Your task to perform on an android device: Go to calendar. Show me events next week Image 0: 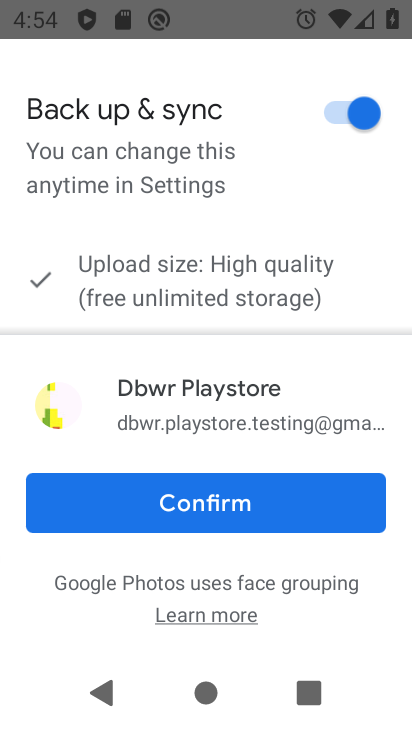
Step 0: press home button
Your task to perform on an android device: Go to calendar. Show me events next week Image 1: 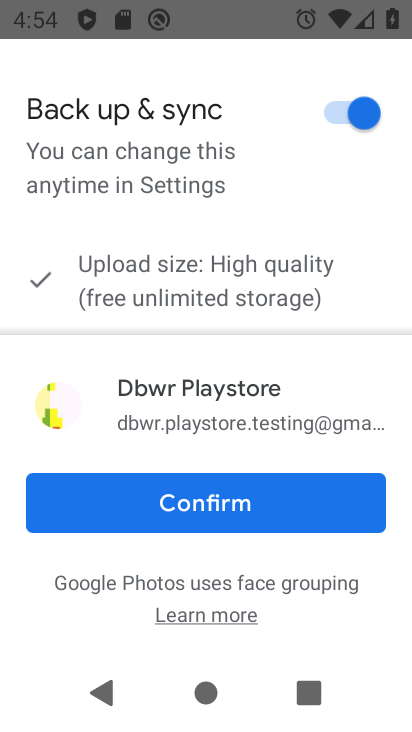
Step 1: press home button
Your task to perform on an android device: Go to calendar. Show me events next week Image 2: 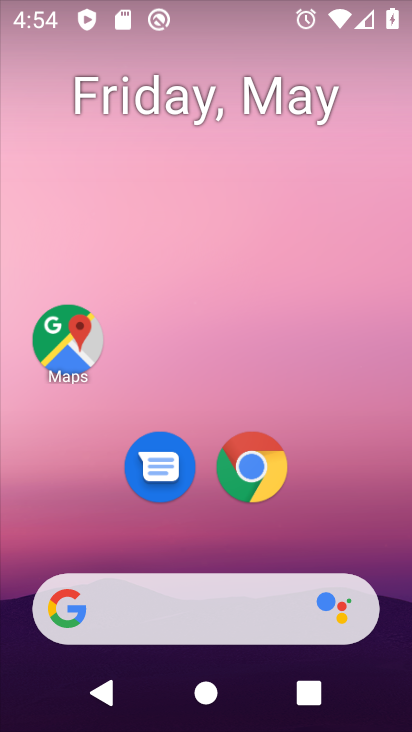
Step 2: drag from (333, 429) to (333, 139)
Your task to perform on an android device: Go to calendar. Show me events next week Image 3: 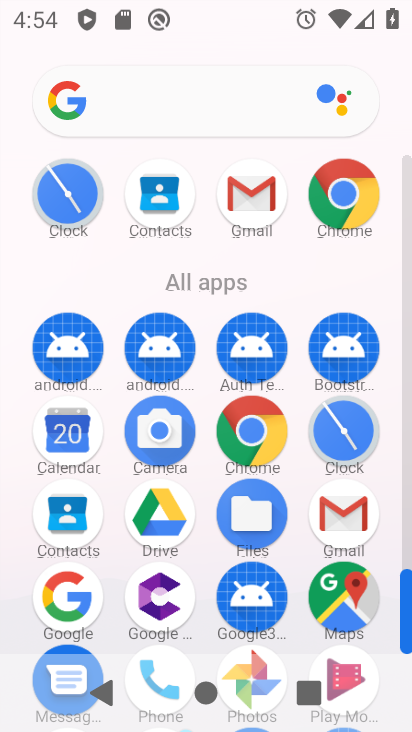
Step 3: click (57, 415)
Your task to perform on an android device: Go to calendar. Show me events next week Image 4: 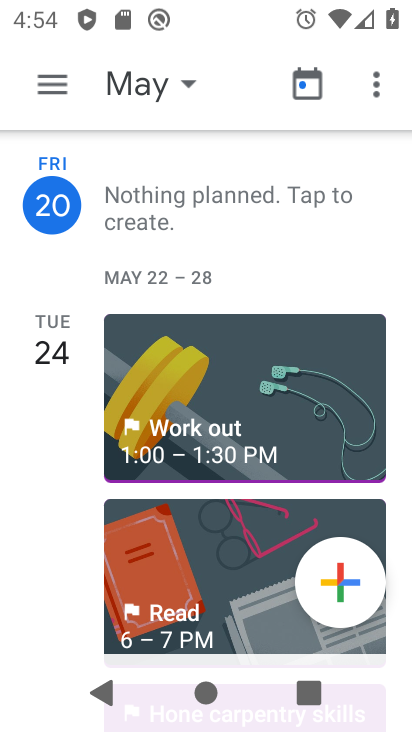
Step 4: click (126, 87)
Your task to perform on an android device: Go to calendar. Show me events next week Image 5: 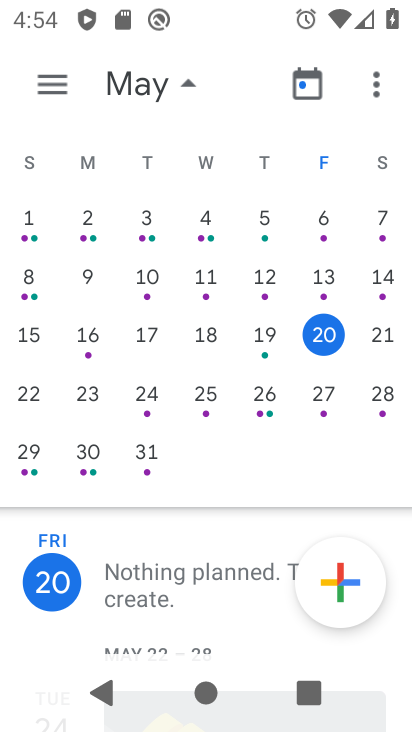
Step 5: drag from (365, 295) to (349, 337)
Your task to perform on an android device: Go to calendar. Show me events next week Image 6: 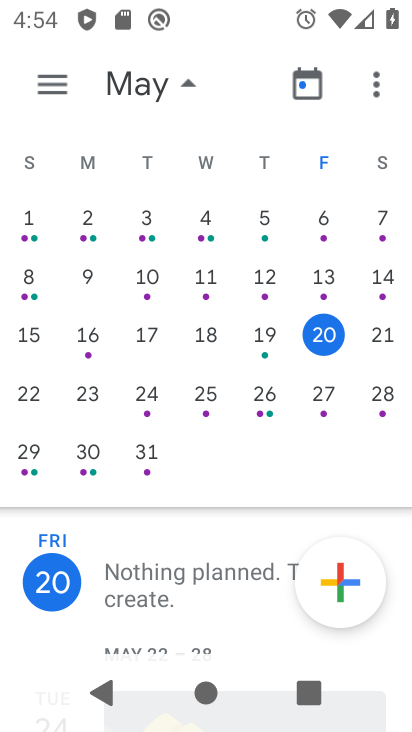
Step 6: click (105, 393)
Your task to perform on an android device: Go to calendar. Show me events next week Image 7: 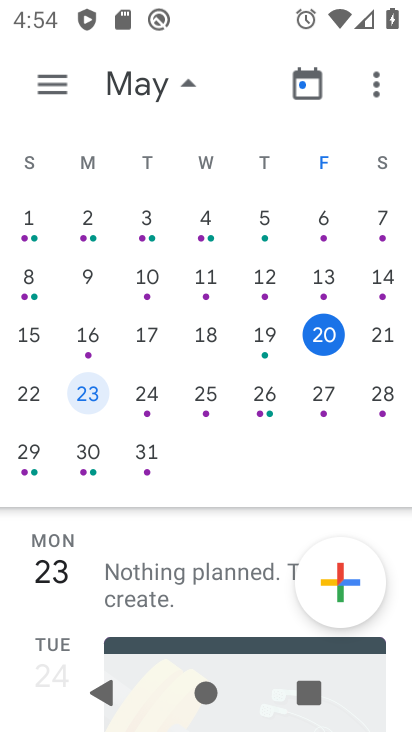
Step 7: click (56, 82)
Your task to perform on an android device: Go to calendar. Show me events next week Image 8: 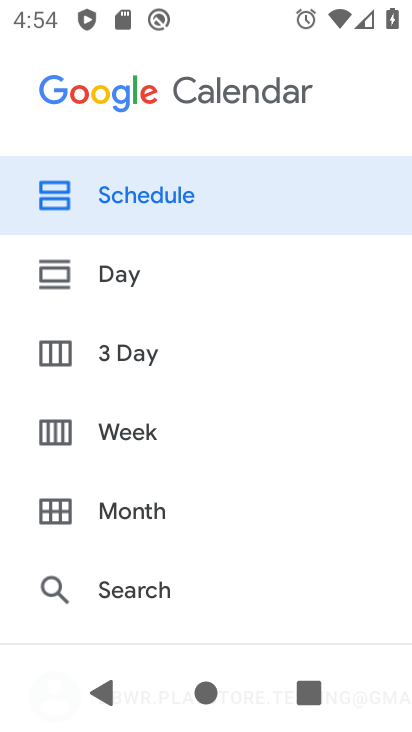
Step 8: click (135, 434)
Your task to perform on an android device: Go to calendar. Show me events next week Image 9: 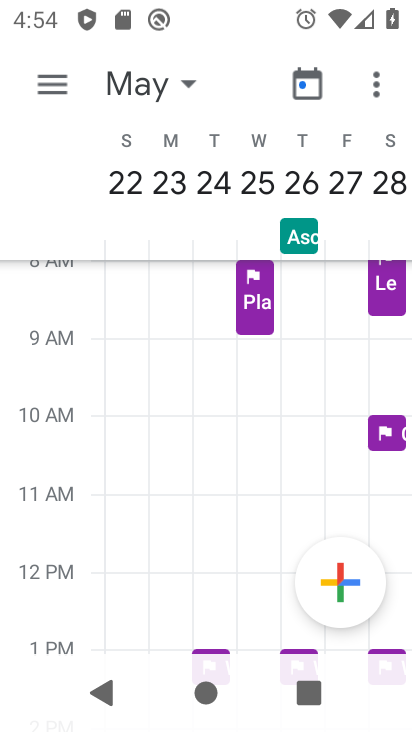
Step 9: task complete